Your task to perform on an android device: Open the calendar and show me this week's events Image 0: 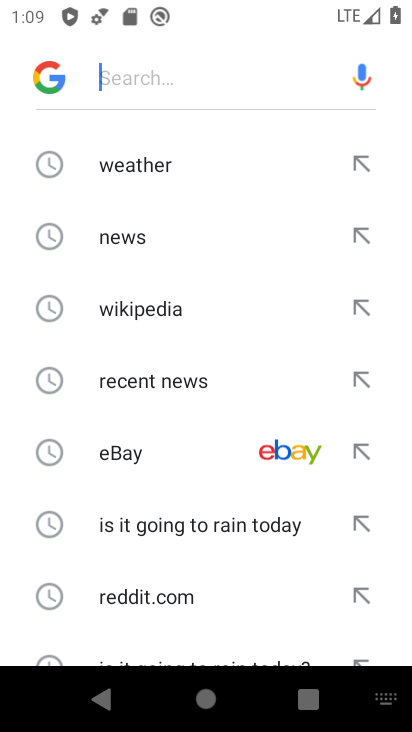
Step 0: press home button
Your task to perform on an android device: Open the calendar and show me this week's events Image 1: 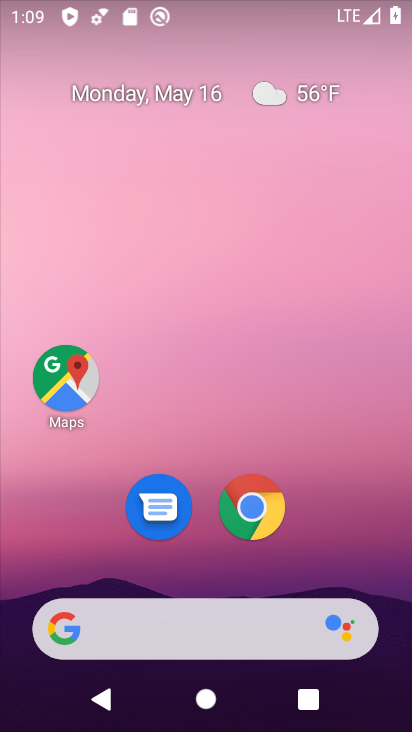
Step 1: drag from (212, 566) to (267, 100)
Your task to perform on an android device: Open the calendar and show me this week's events Image 2: 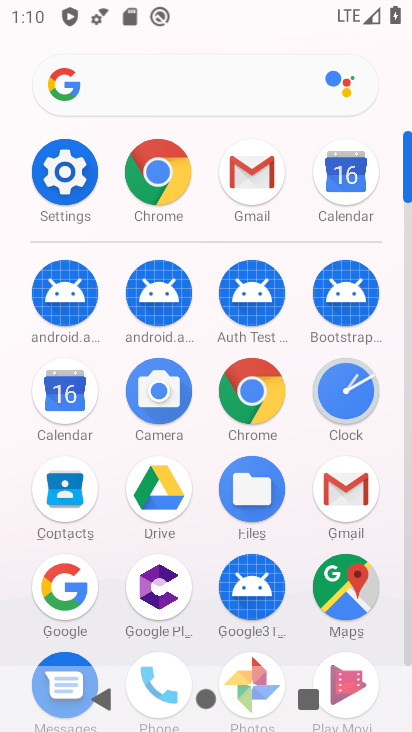
Step 2: click (363, 170)
Your task to perform on an android device: Open the calendar and show me this week's events Image 3: 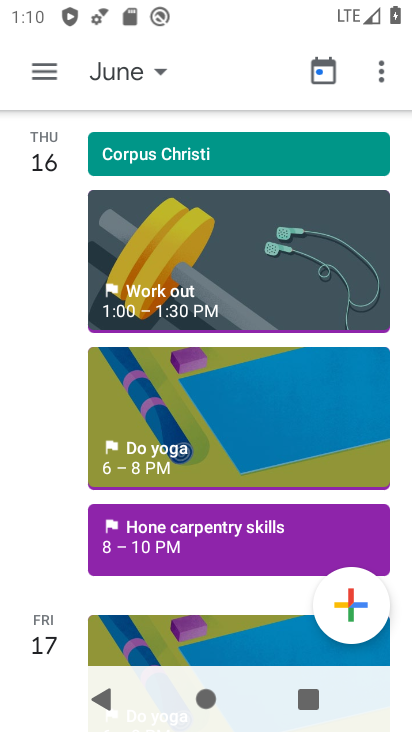
Step 3: click (150, 70)
Your task to perform on an android device: Open the calendar and show me this week's events Image 4: 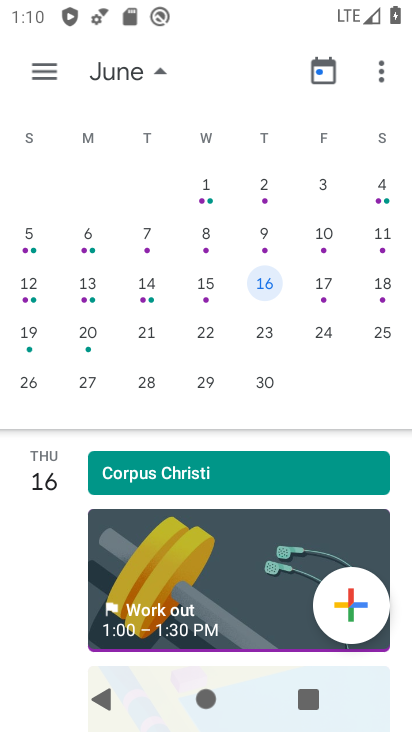
Step 4: click (215, 280)
Your task to perform on an android device: Open the calendar and show me this week's events Image 5: 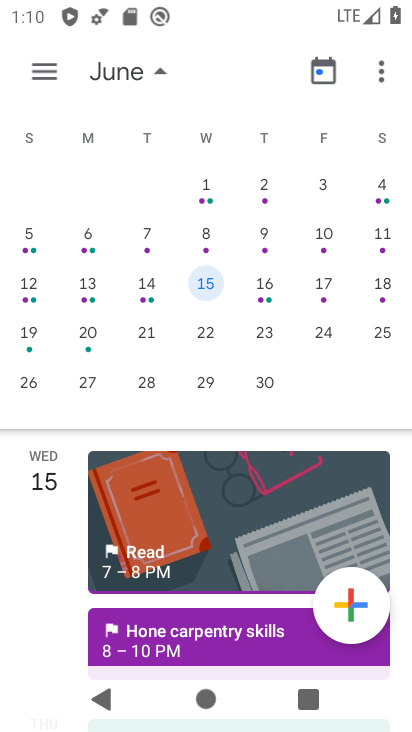
Step 5: click (311, 279)
Your task to perform on an android device: Open the calendar and show me this week's events Image 6: 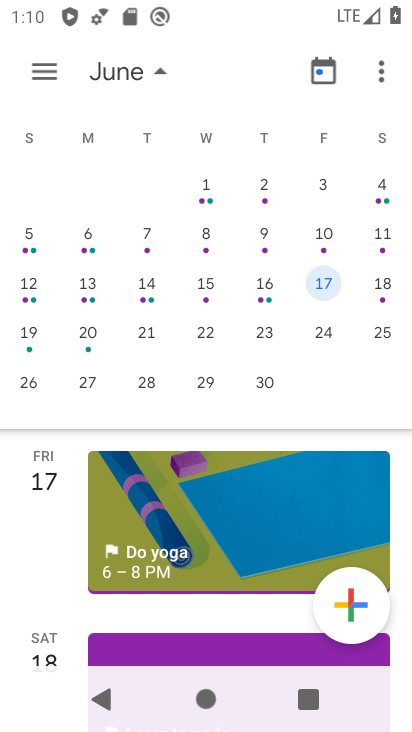
Step 6: task complete